Your task to perform on an android device: Go to Reddit.com Image 0: 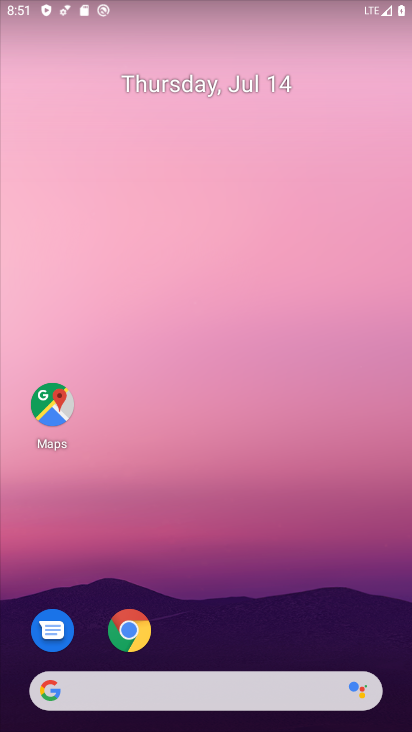
Step 0: click (126, 631)
Your task to perform on an android device: Go to Reddit.com Image 1: 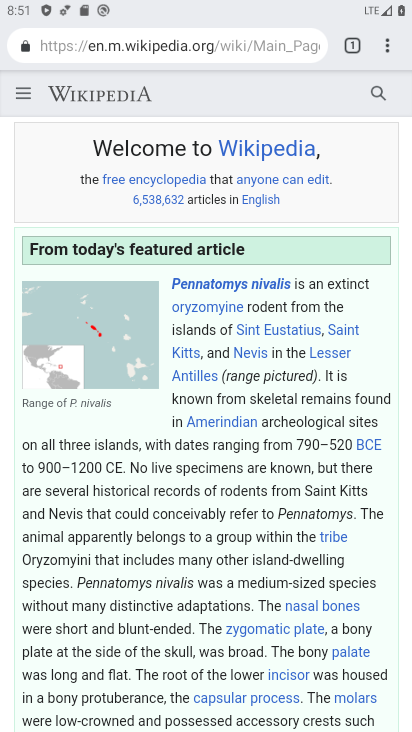
Step 1: click (348, 45)
Your task to perform on an android device: Go to Reddit.com Image 2: 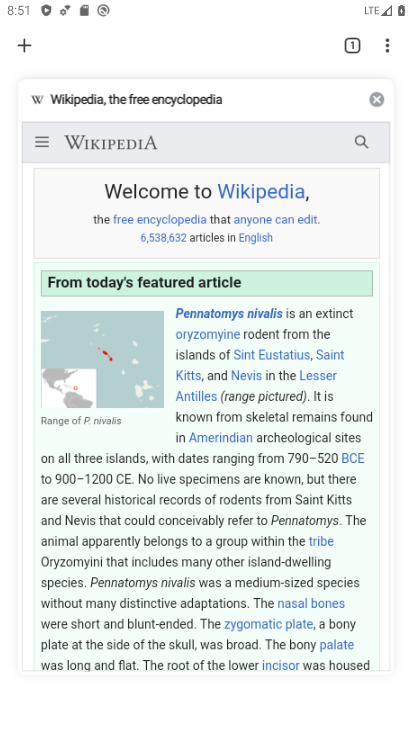
Step 2: click (24, 36)
Your task to perform on an android device: Go to Reddit.com Image 3: 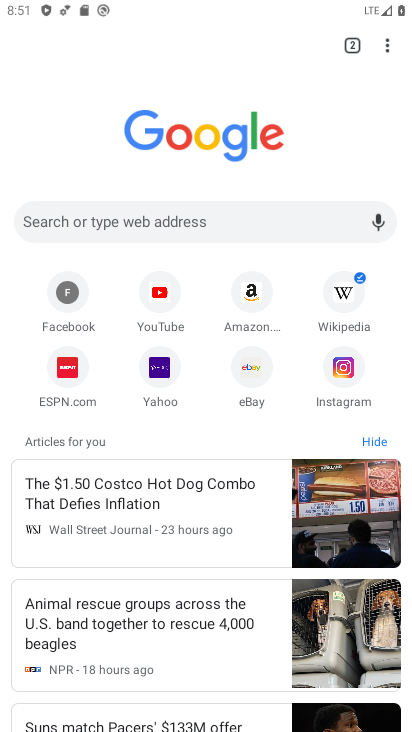
Step 3: click (228, 221)
Your task to perform on an android device: Go to Reddit.com Image 4: 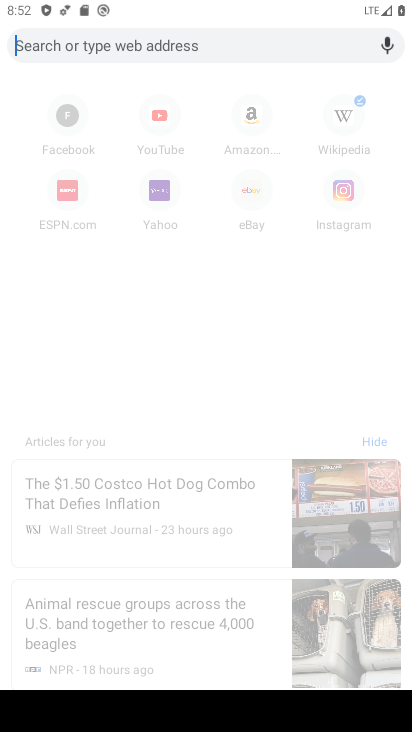
Step 4: type "reddit"
Your task to perform on an android device: Go to Reddit.com Image 5: 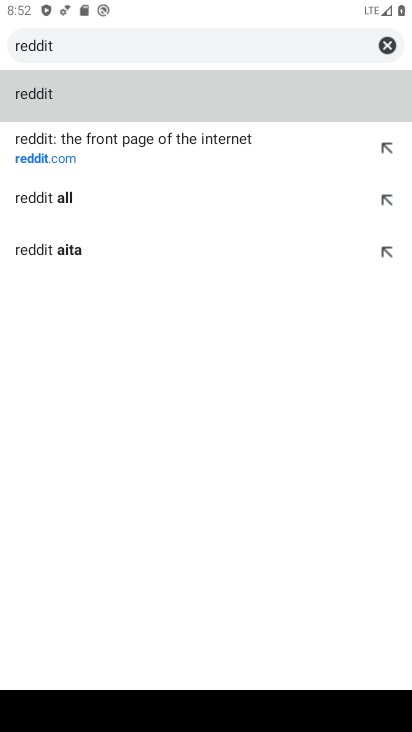
Step 5: click (75, 151)
Your task to perform on an android device: Go to Reddit.com Image 6: 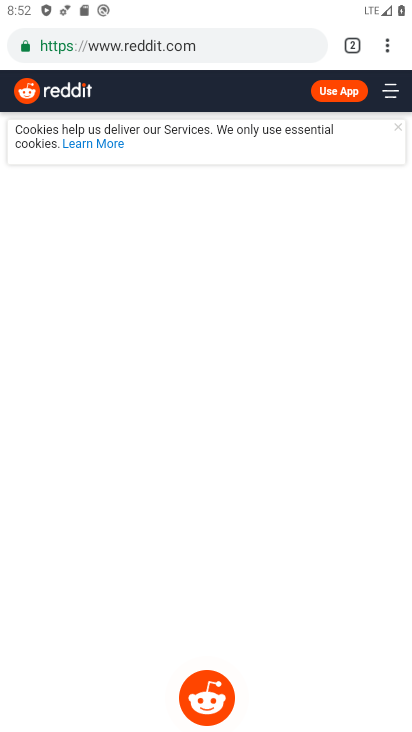
Step 6: task complete